Your task to perform on an android device: Open Reddit Image 0: 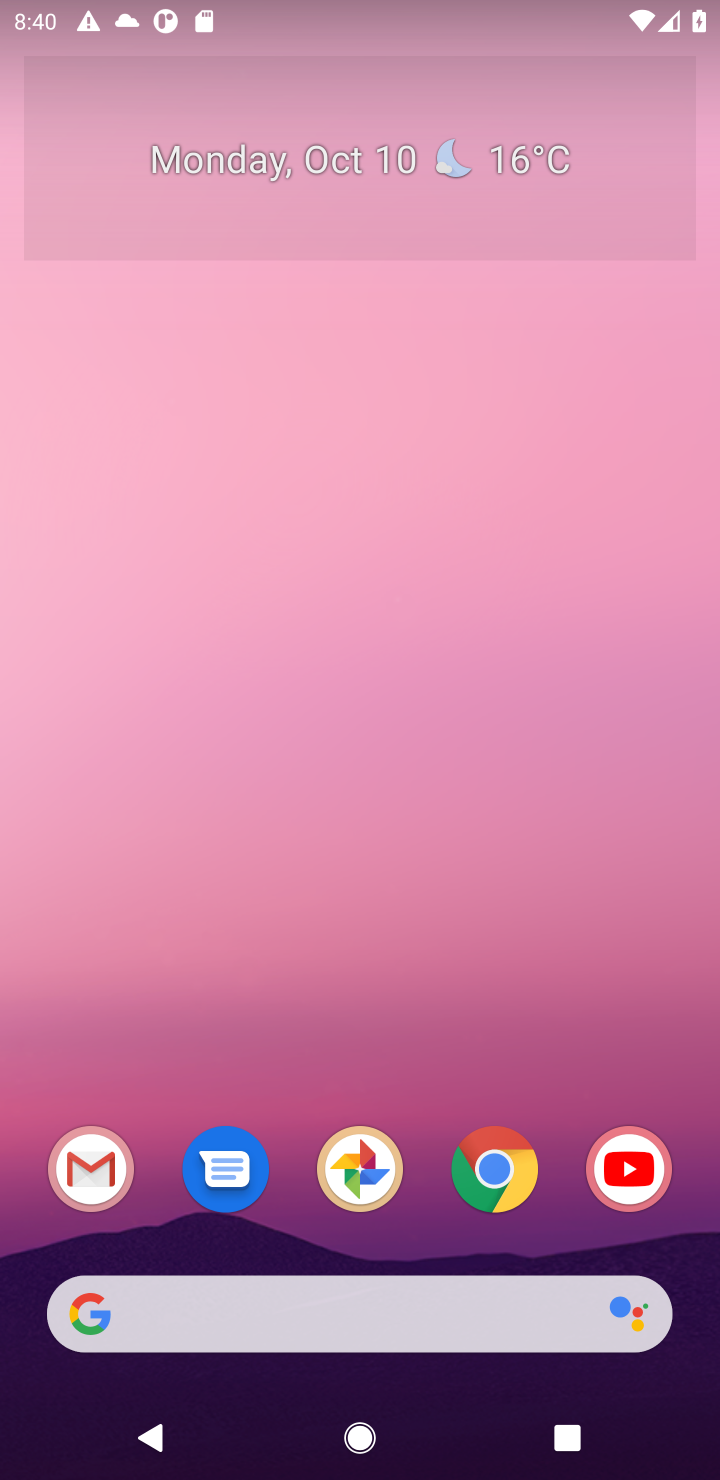
Step 0: drag from (349, 1065) to (28, 258)
Your task to perform on an android device: Open Reddit Image 1: 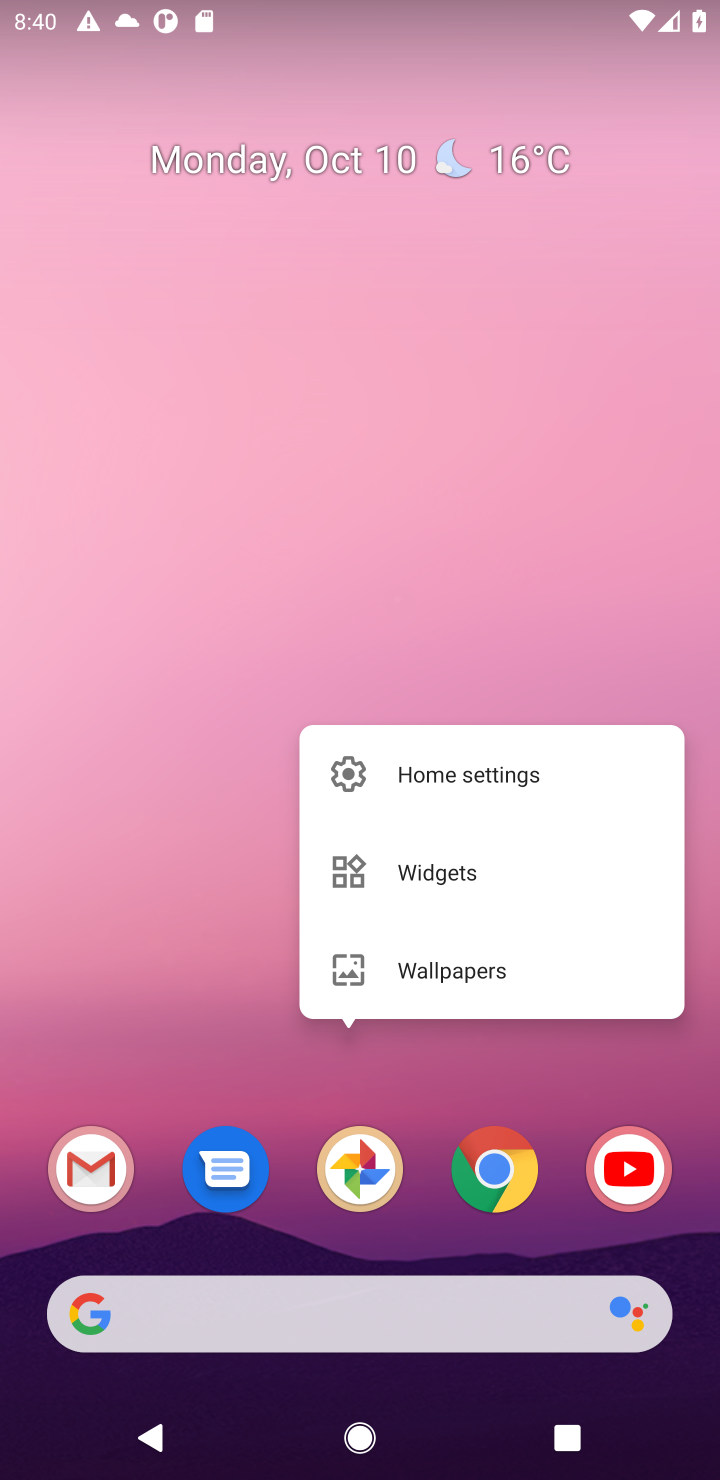
Step 1: drag from (253, 633) to (331, 172)
Your task to perform on an android device: Open Reddit Image 2: 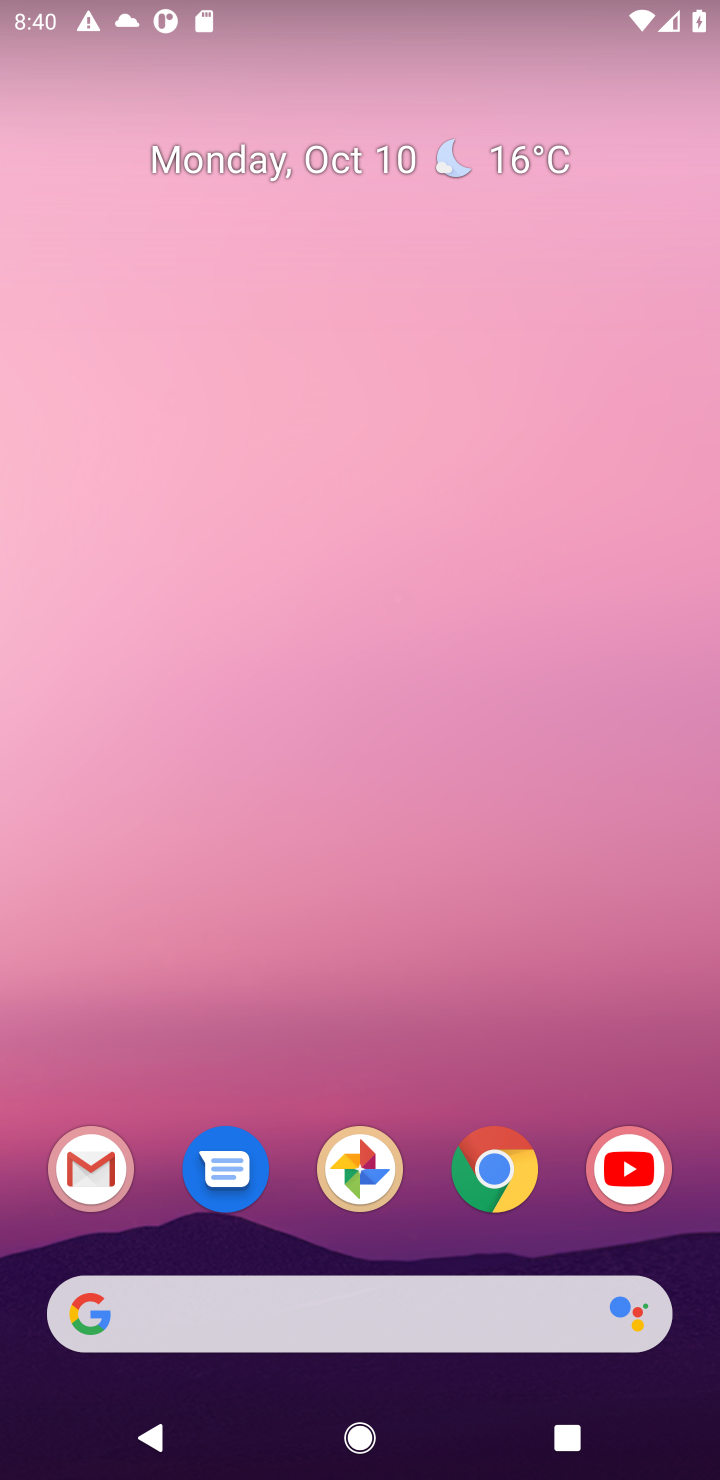
Step 2: drag from (382, 1081) to (441, 511)
Your task to perform on an android device: Open Reddit Image 3: 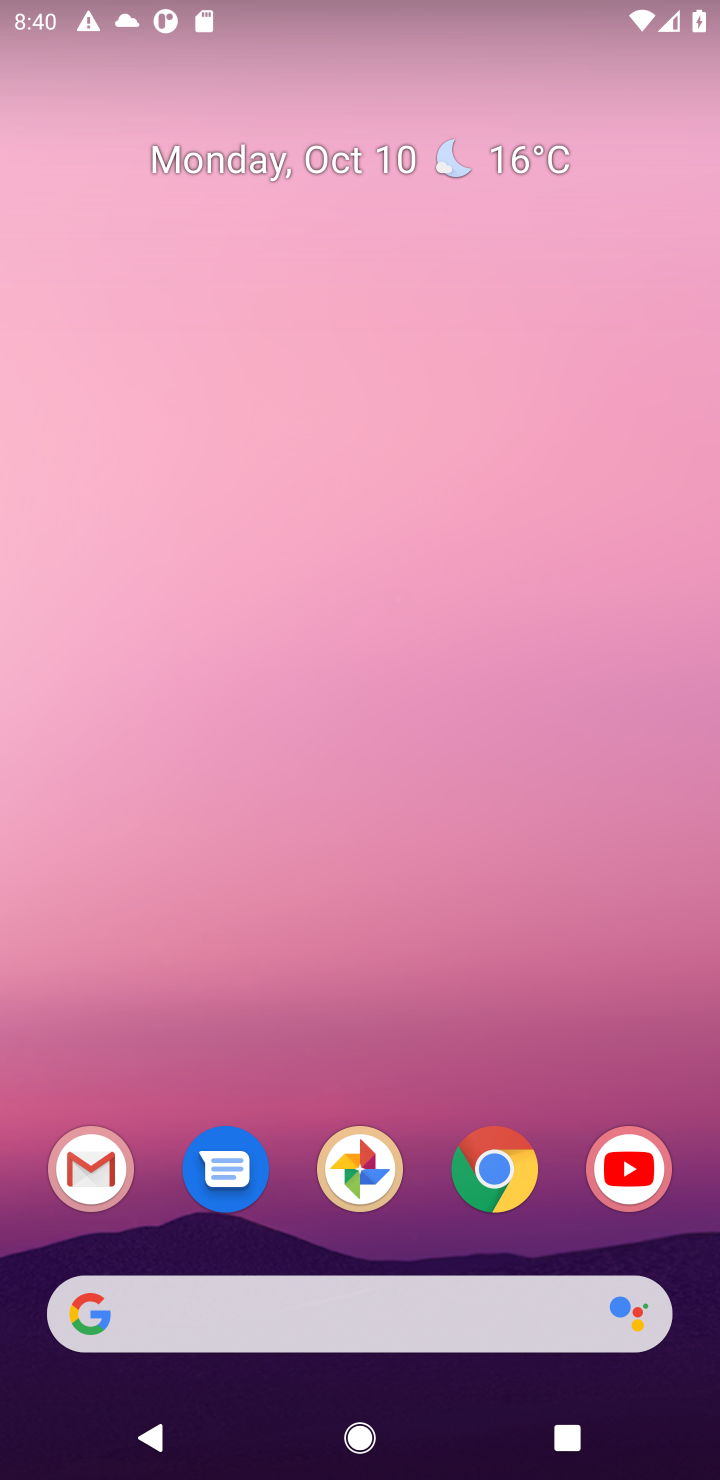
Step 3: drag from (419, 999) to (518, 342)
Your task to perform on an android device: Open Reddit Image 4: 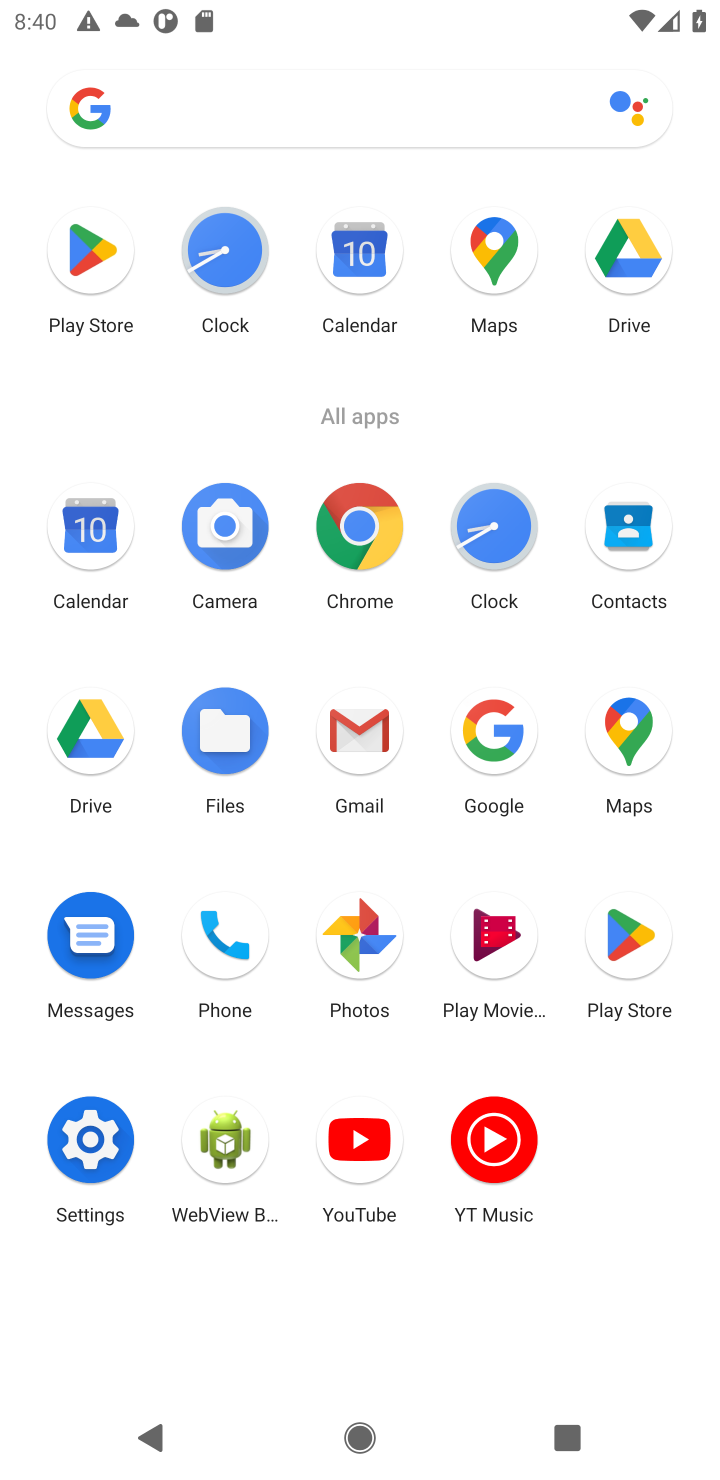
Step 4: click (98, 291)
Your task to perform on an android device: Open Reddit Image 5: 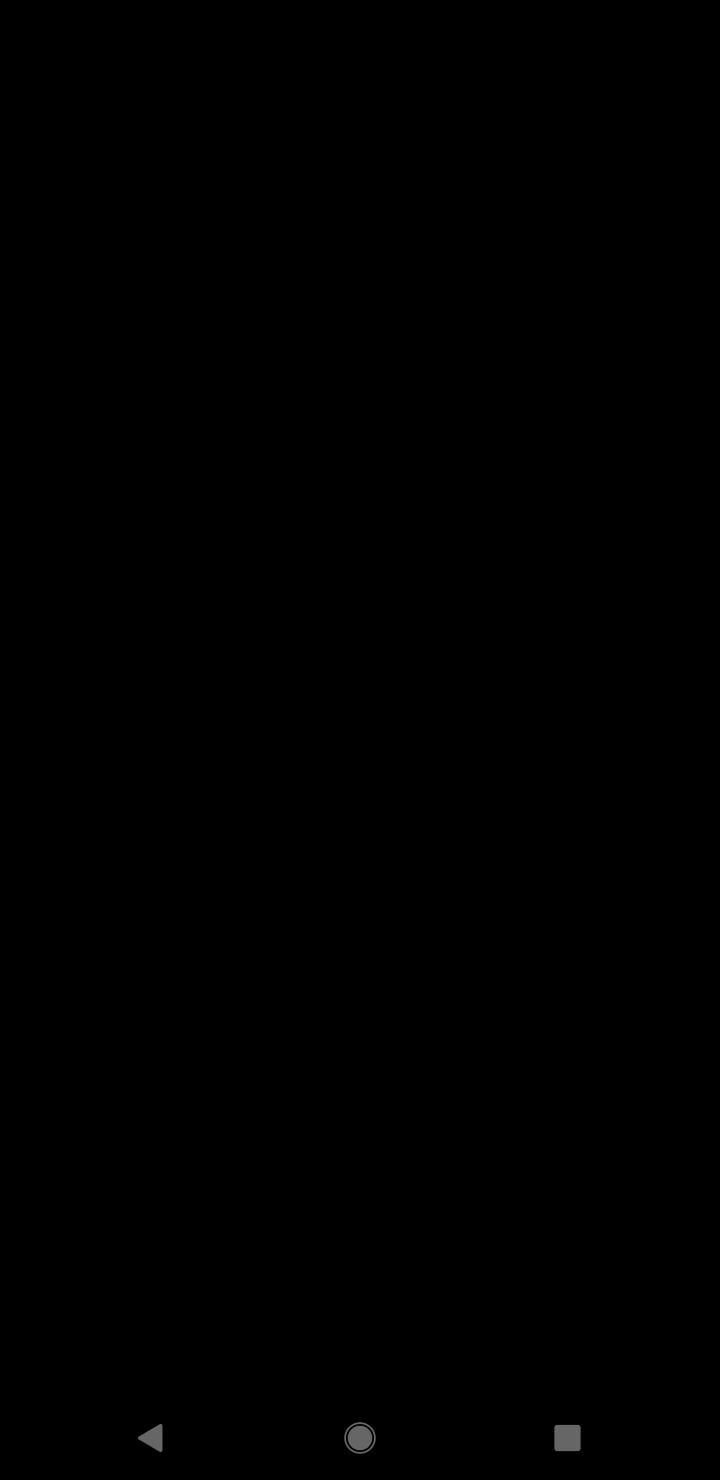
Step 5: press home button
Your task to perform on an android device: Open Reddit Image 6: 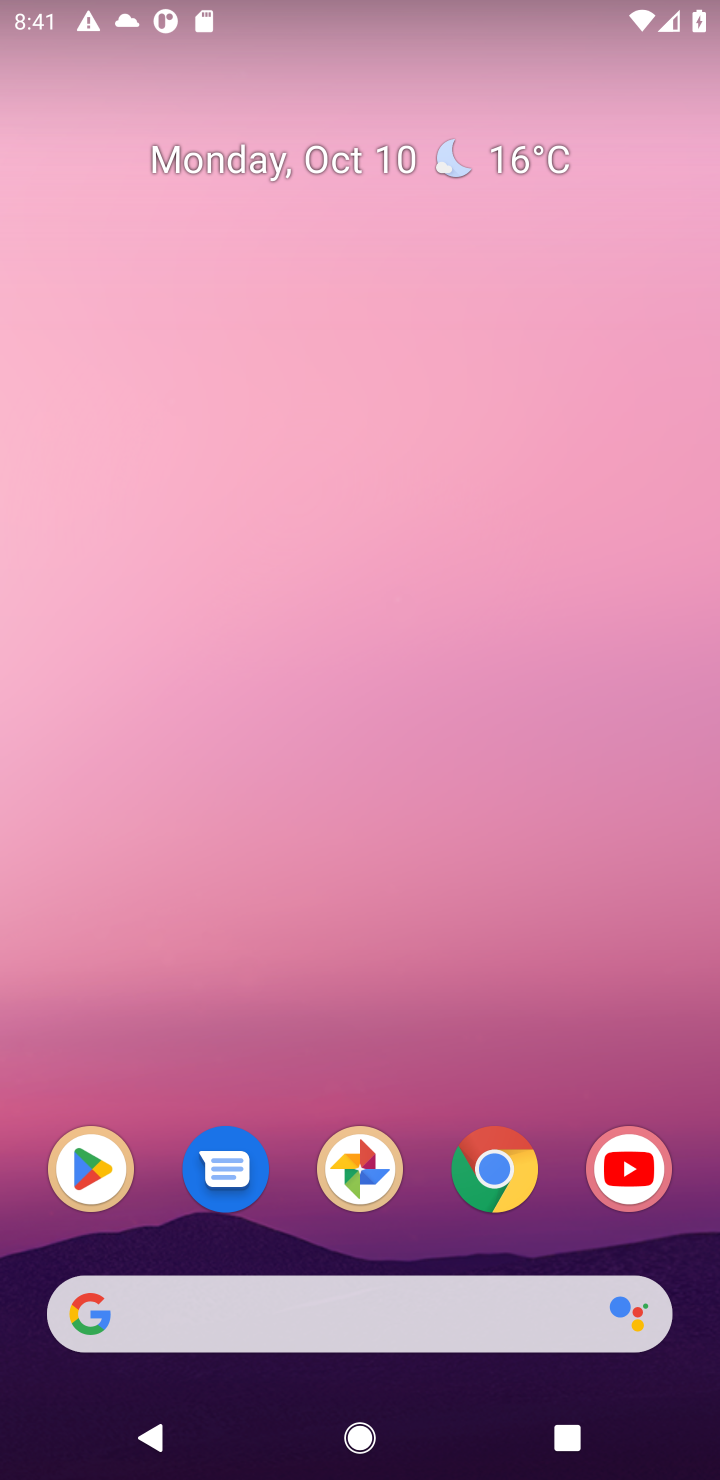
Step 6: click (579, 1433)
Your task to perform on an android device: Open Reddit Image 7: 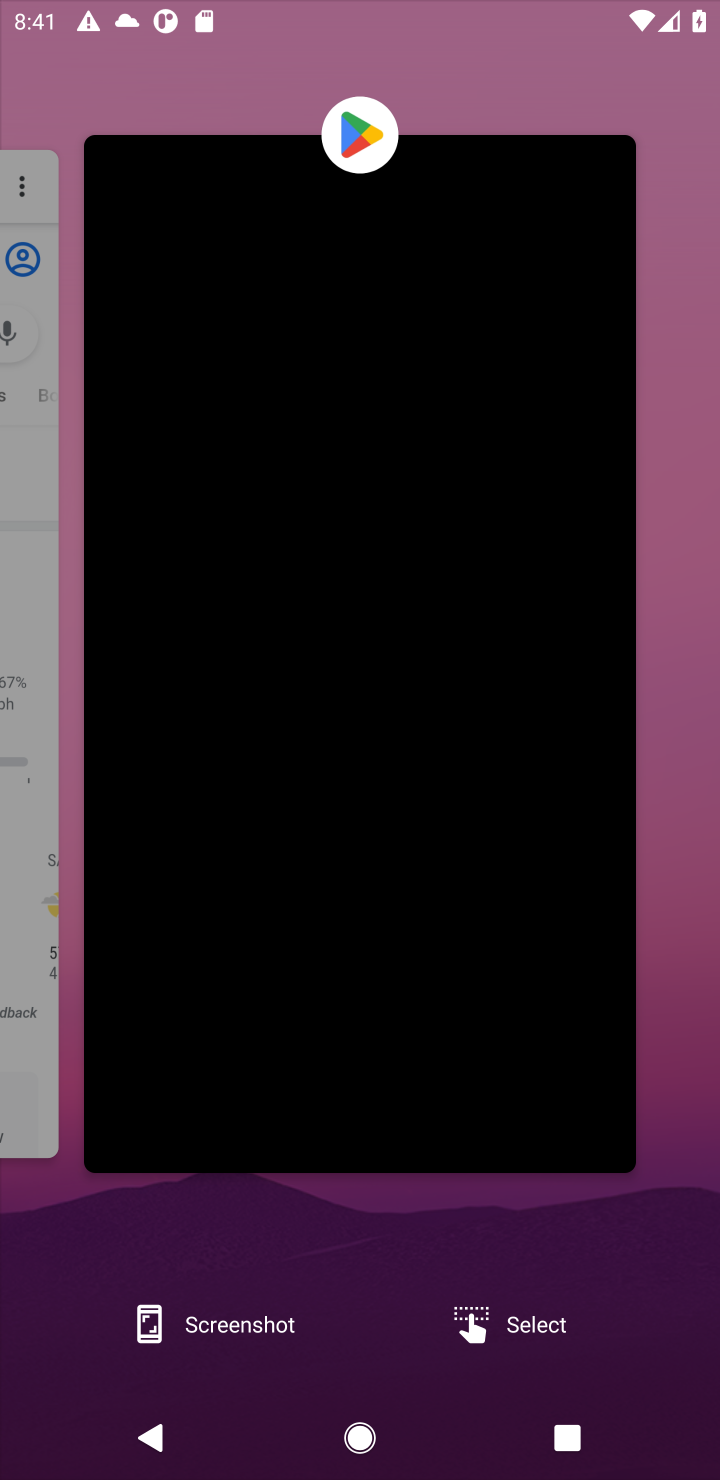
Step 7: click (306, 701)
Your task to perform on an android device: Open Reddit Image 8: 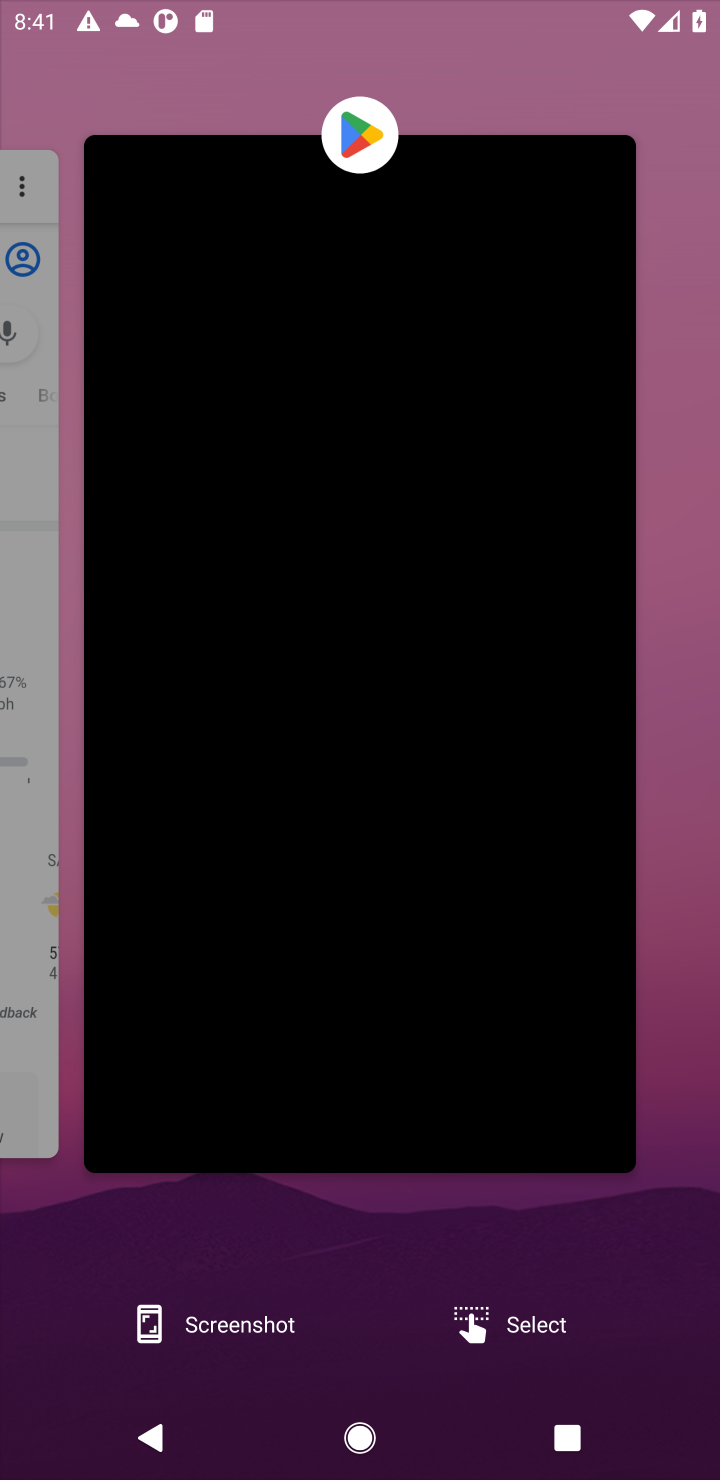
Step 8: click (306, 701)
Your task to perform on an android device: Open Reddit Image 9: 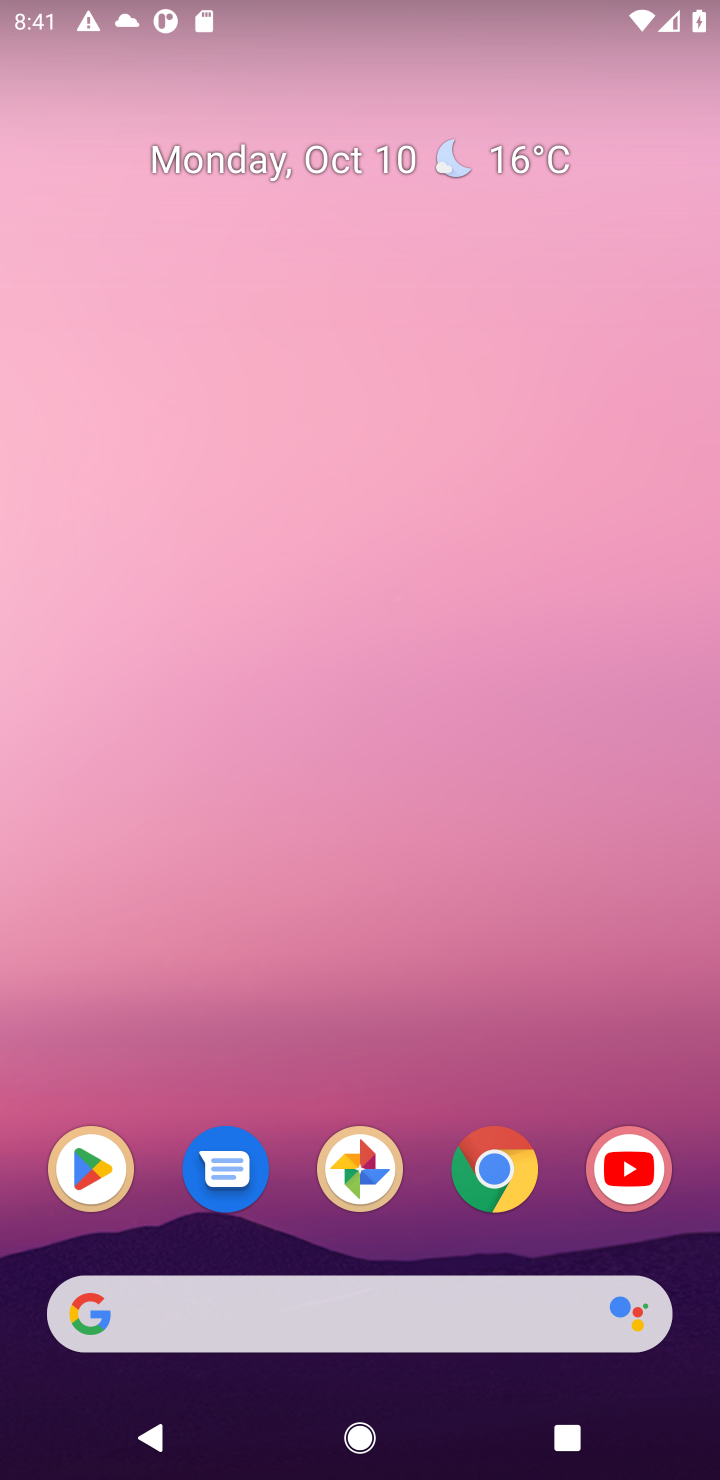
Step 9: click (492, 1150)
Your task to perform on an android device: Open Reddit Image 10: 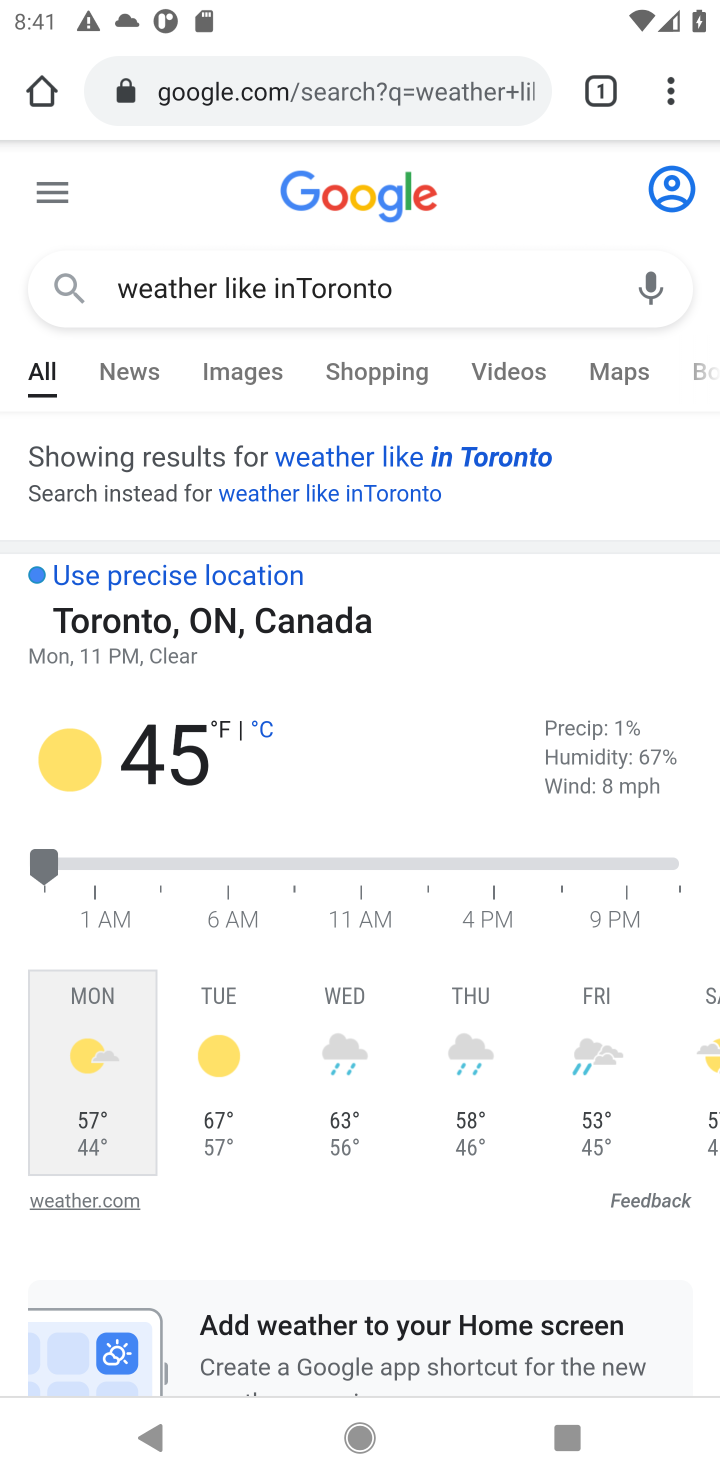
Step 10: click (403, 86)
Your task to perform on an android device: Open Reddit Image 11: 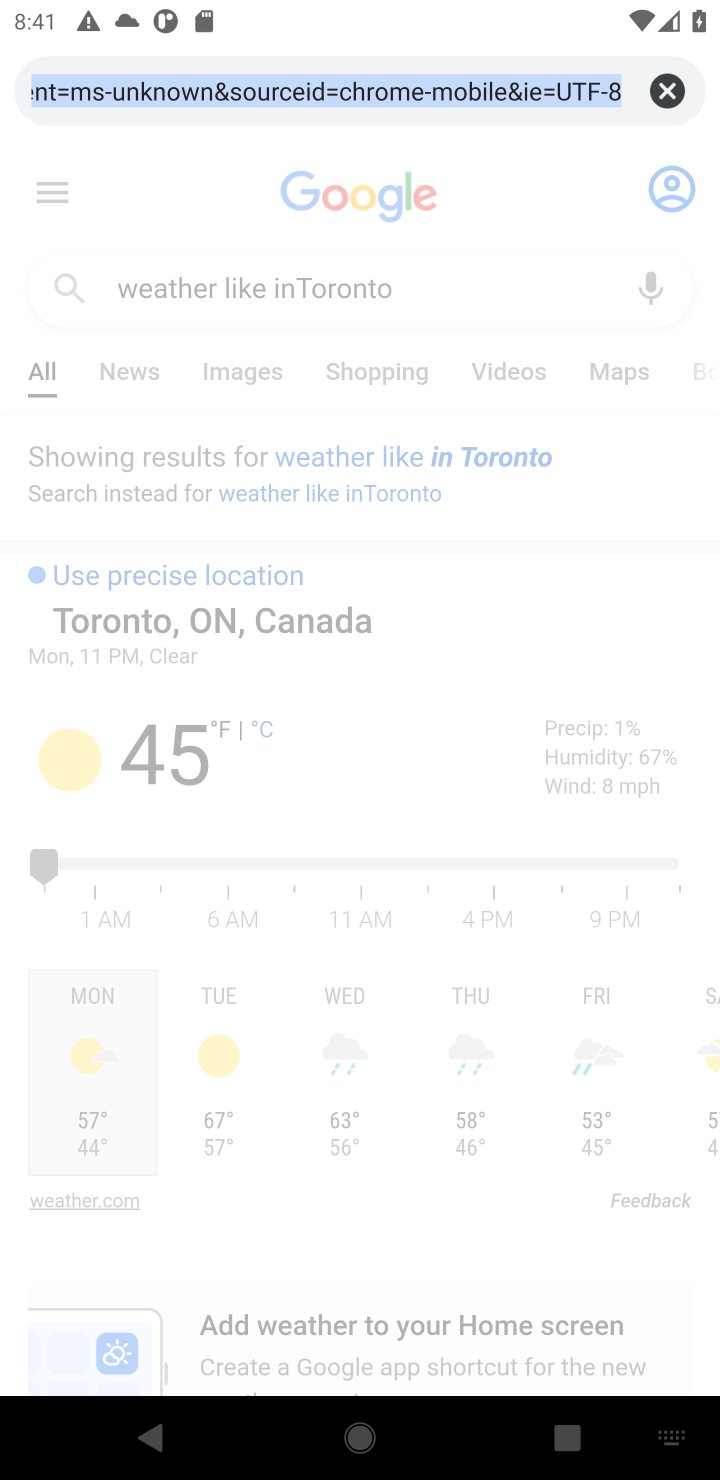
Step 11: type "Reddit"
Your task to perform on an android device: Open Reddit Image 12: 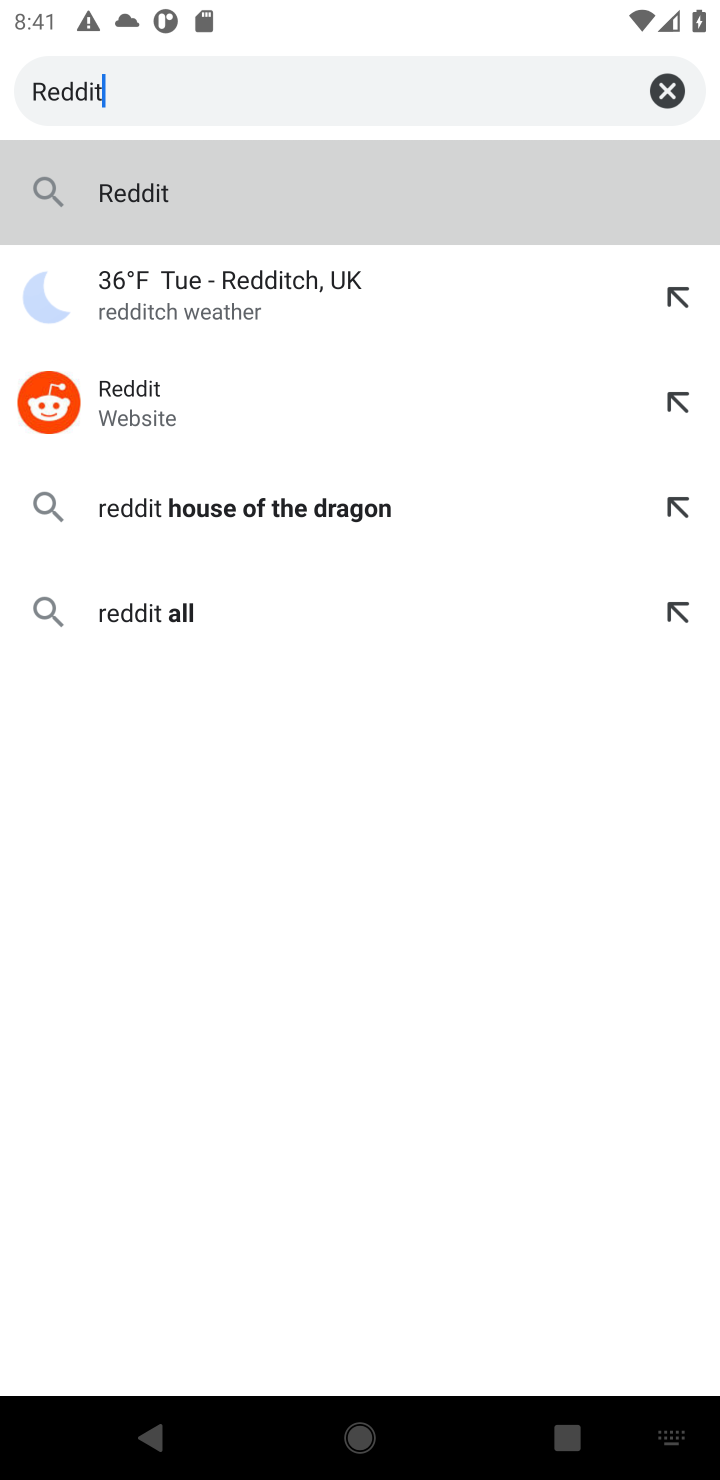
Step 12: click (199, 393)
Your task to perform on an android device: Open Reddit Image 13: 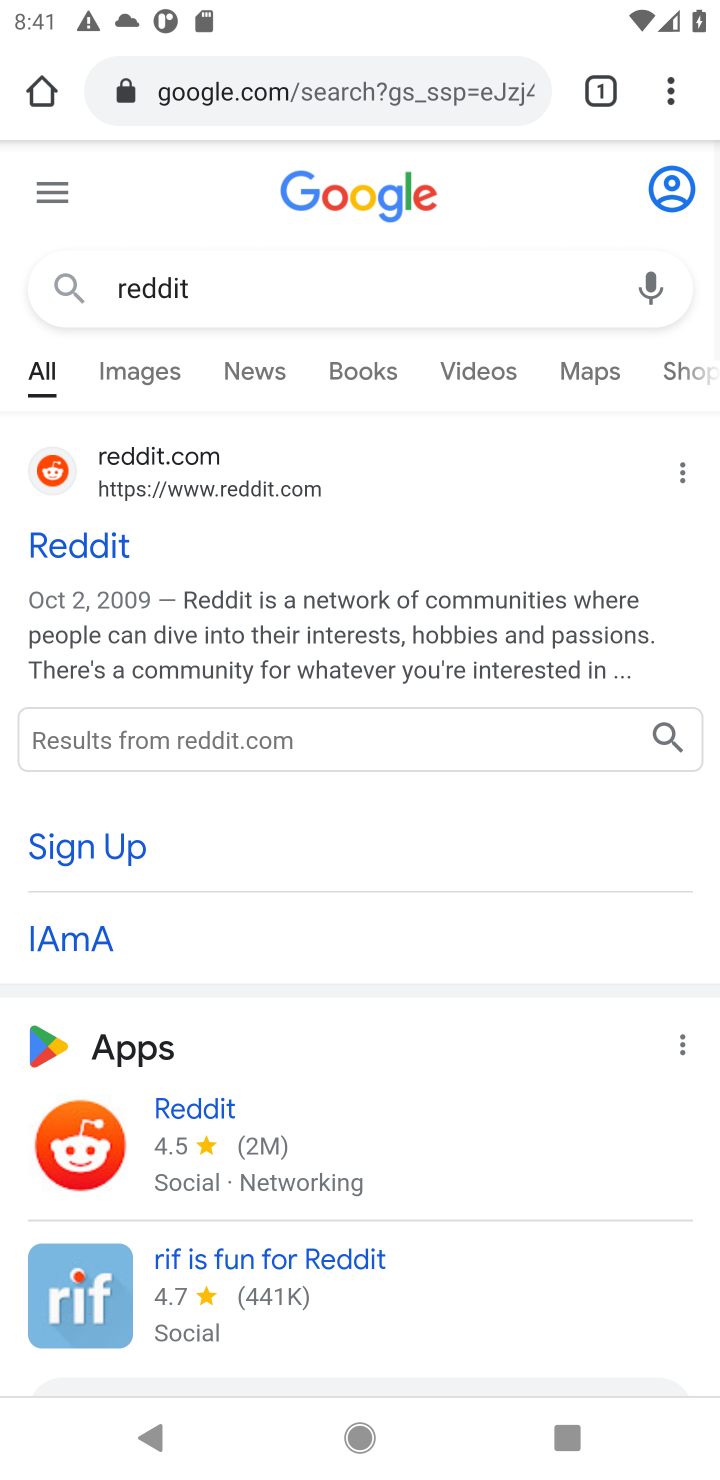
Step 13: click (382, 1461)
Your task to perform on an android device: Open Reddit Image 14: 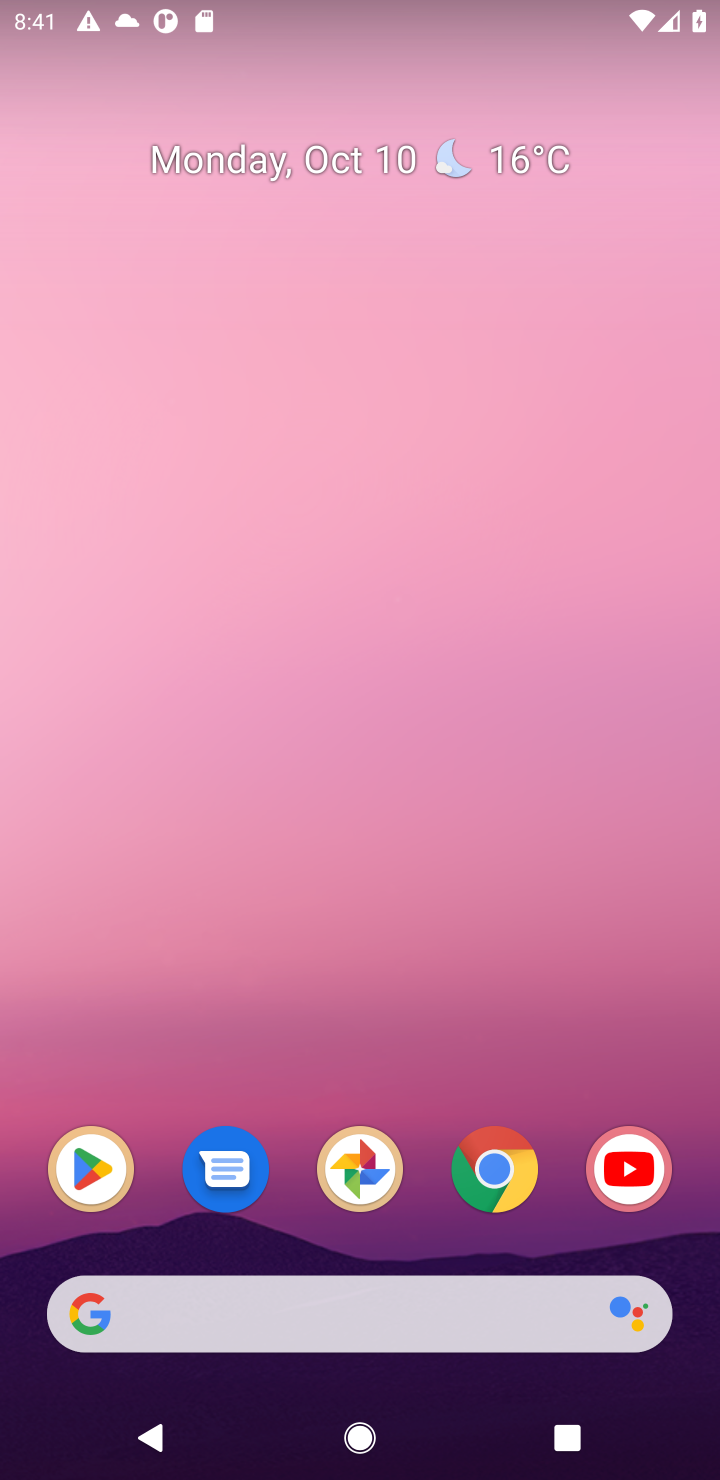
Step 14: click (285, 296)
Your task to perform on an android device: Open Reddit Image 15: 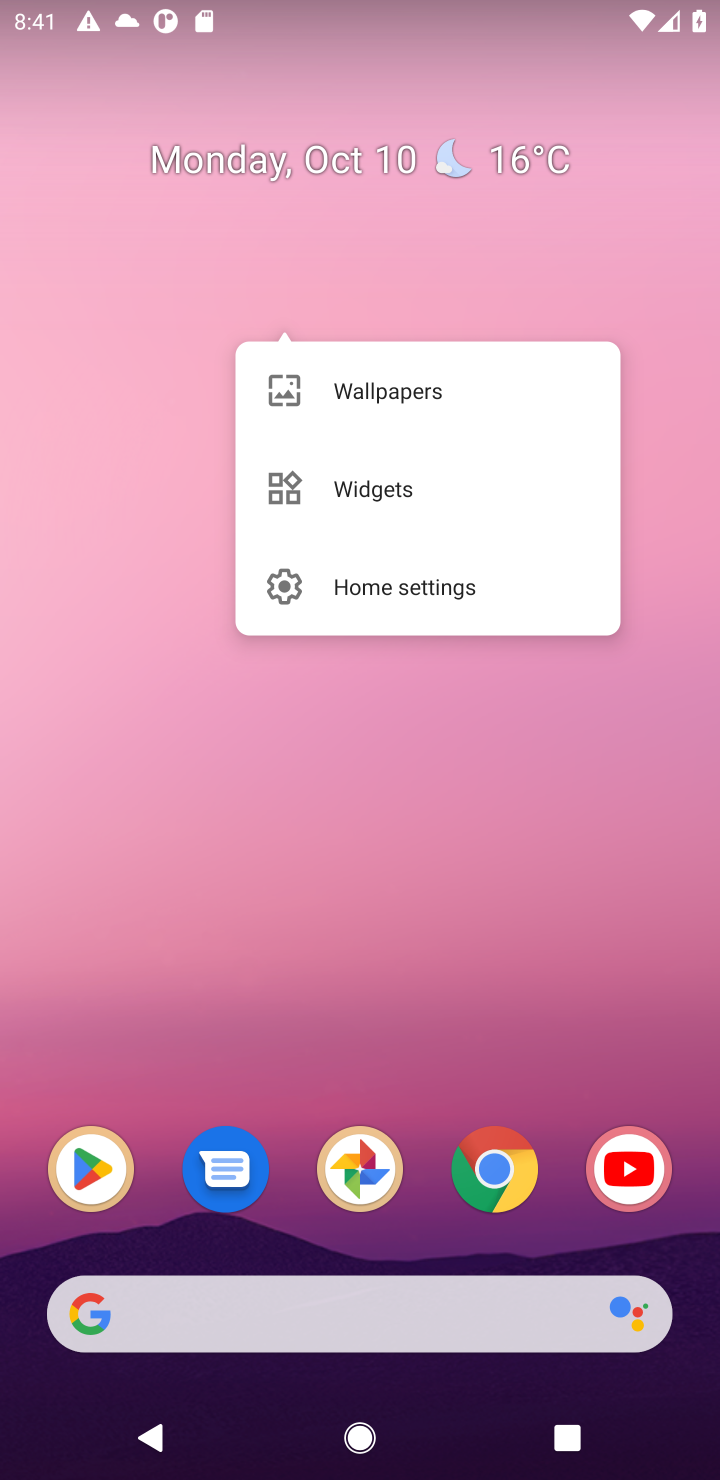
Step 15: click (411, 498)
Your task to perform on an android device: Open Reddit Image 16: 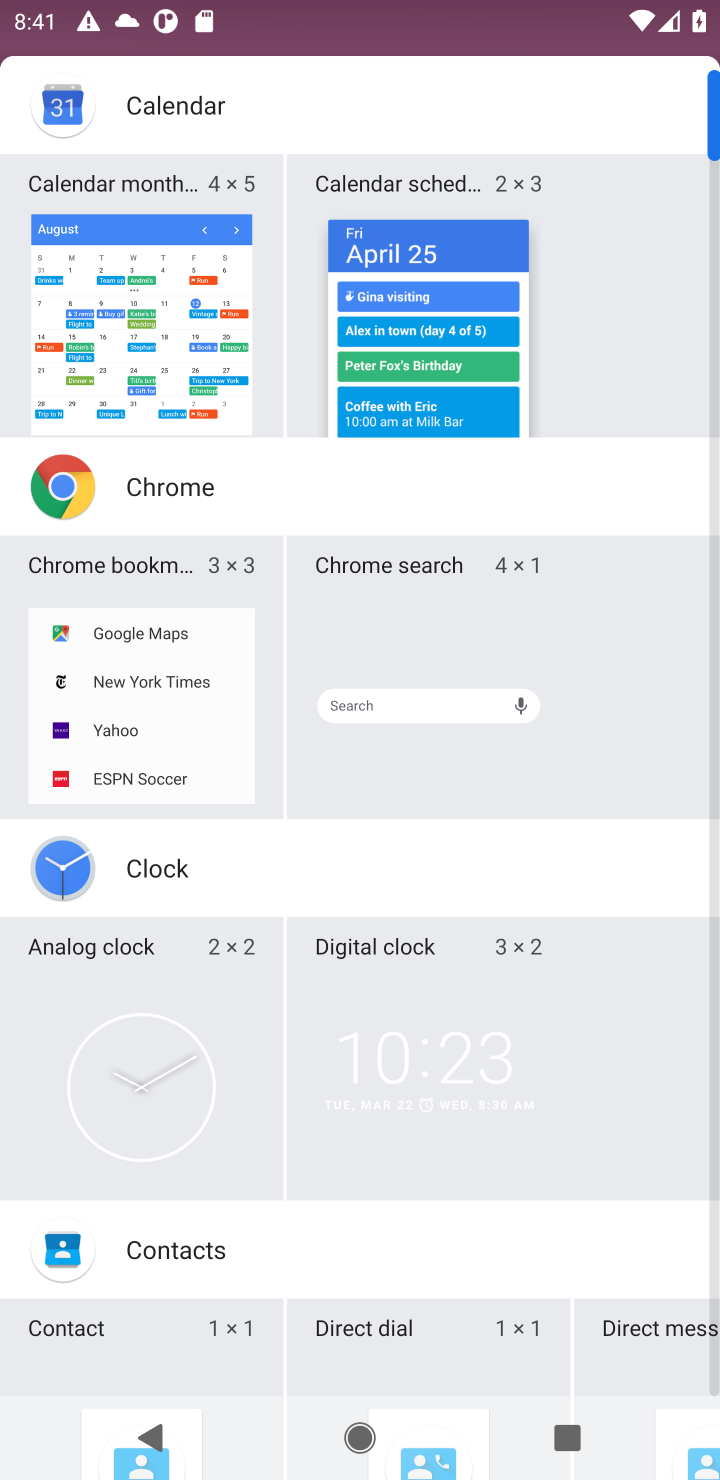
Step 16: click (349, 1440)
Your task to perform on an android device: Open Reddit Image 17: 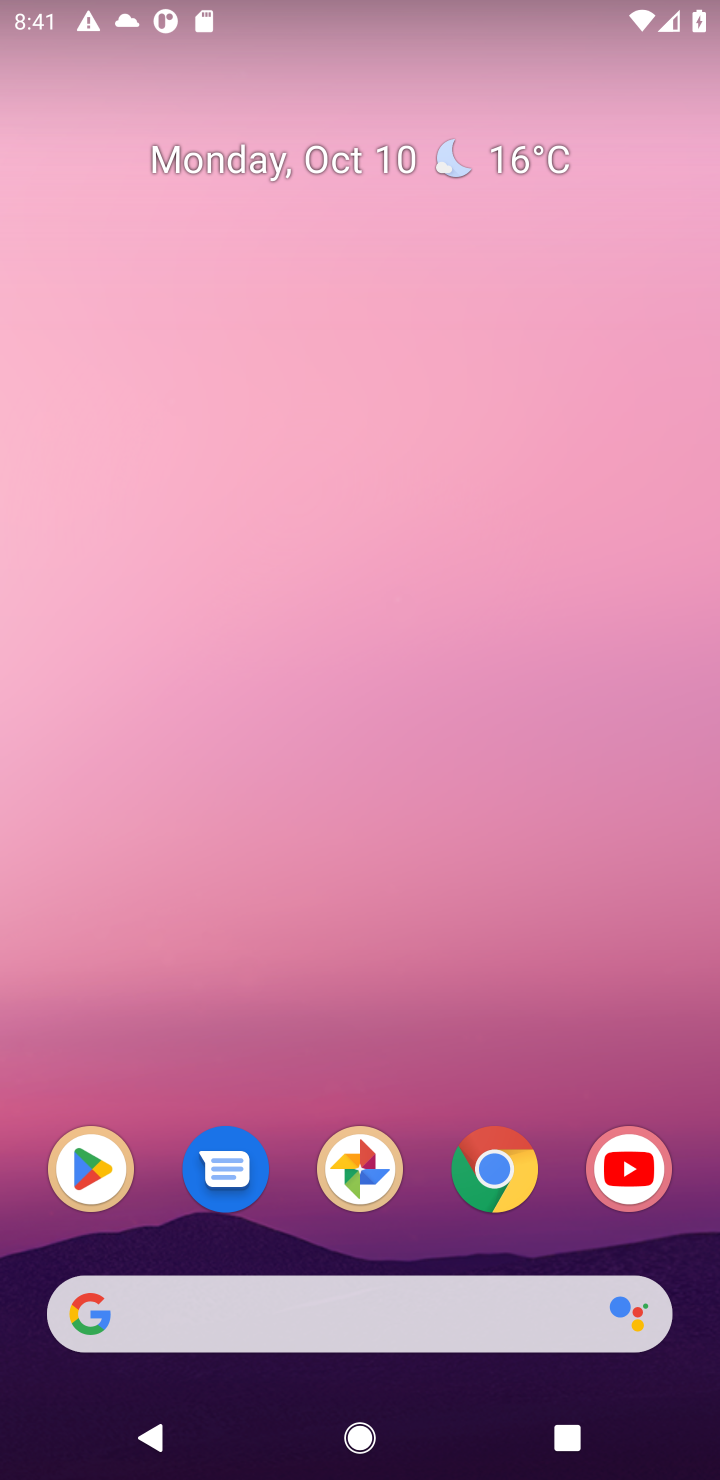
Step 17: drag from (368, 638) to (454, 309)
Your task to perform on an android device: Open Reddit Image 18: 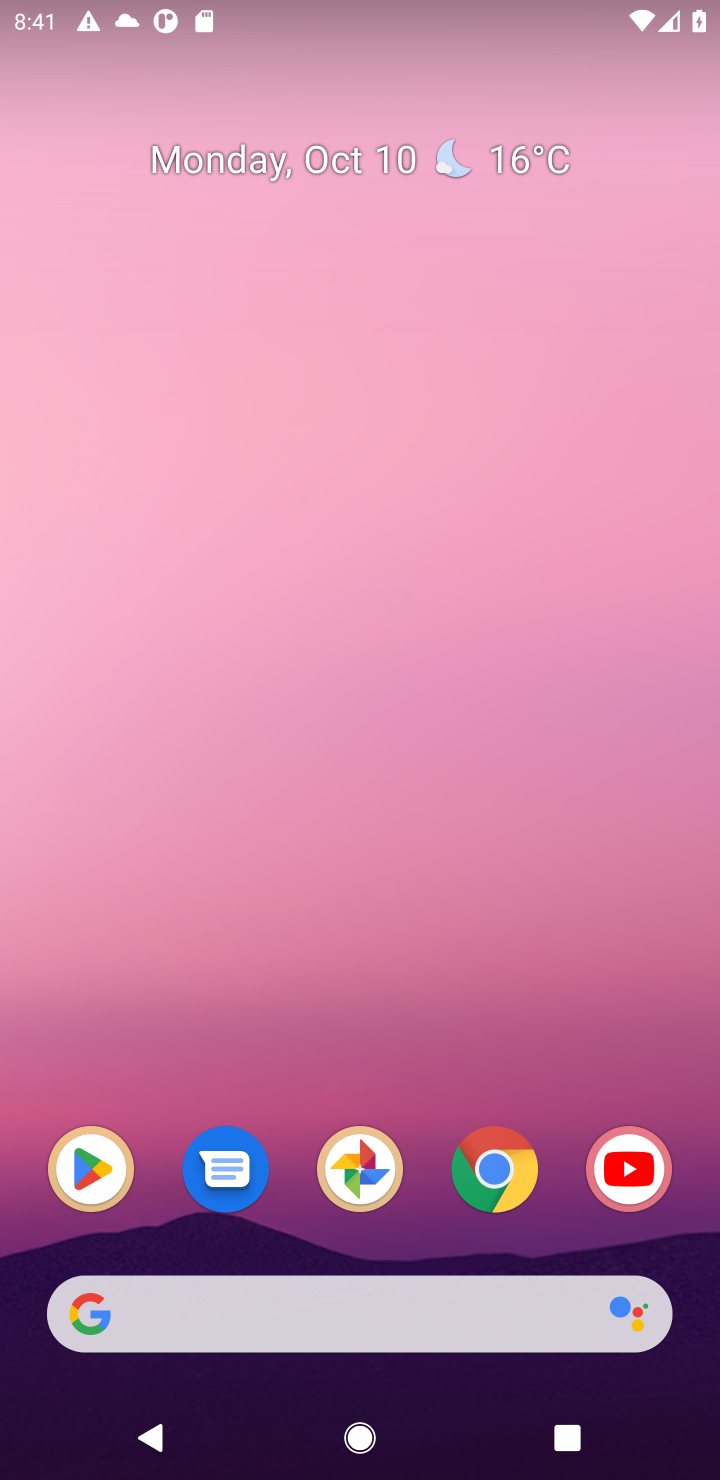
Step 18: drag from (371, 1045) to (355, 1)
Your task to perform on an android device: Open Reddit Image 19: 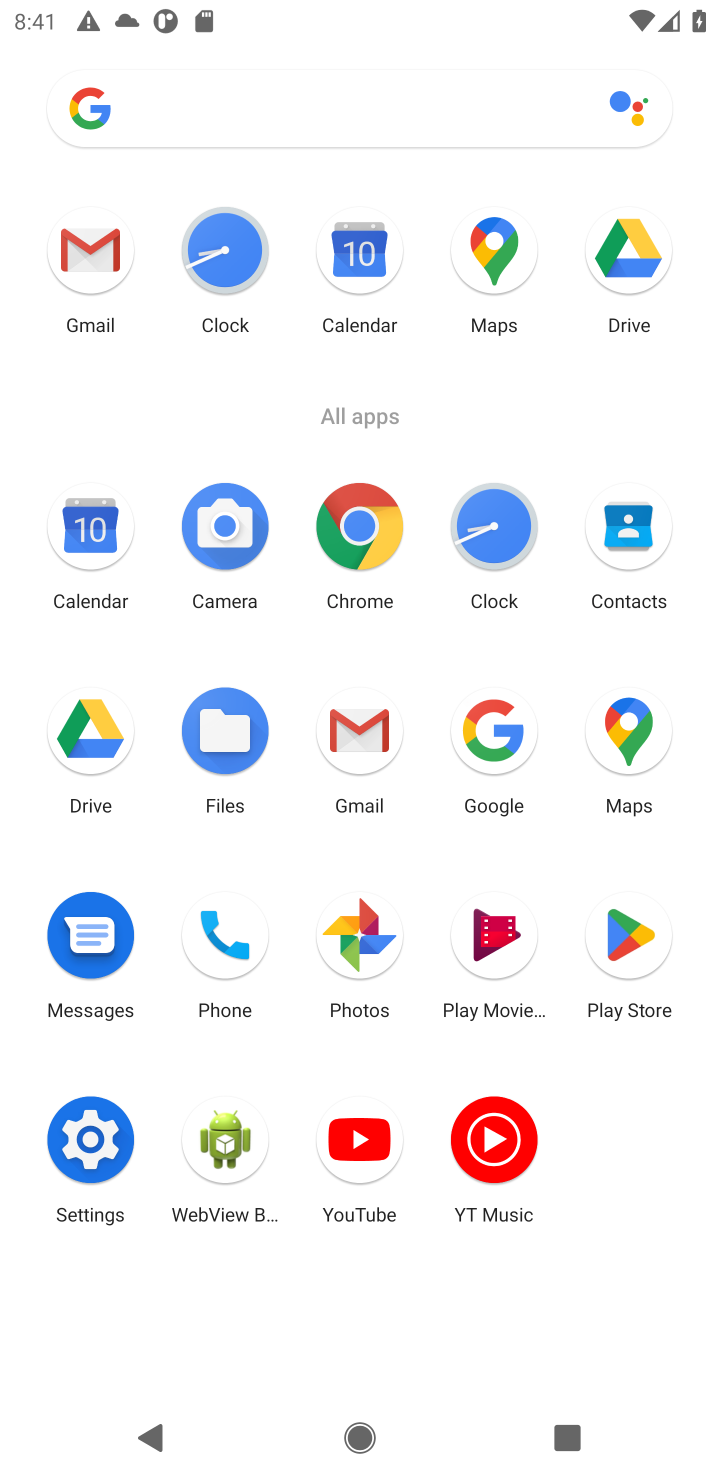
Step 19: click (634, 943)
Your task to perform on an android device: Open Reddit Image 20: 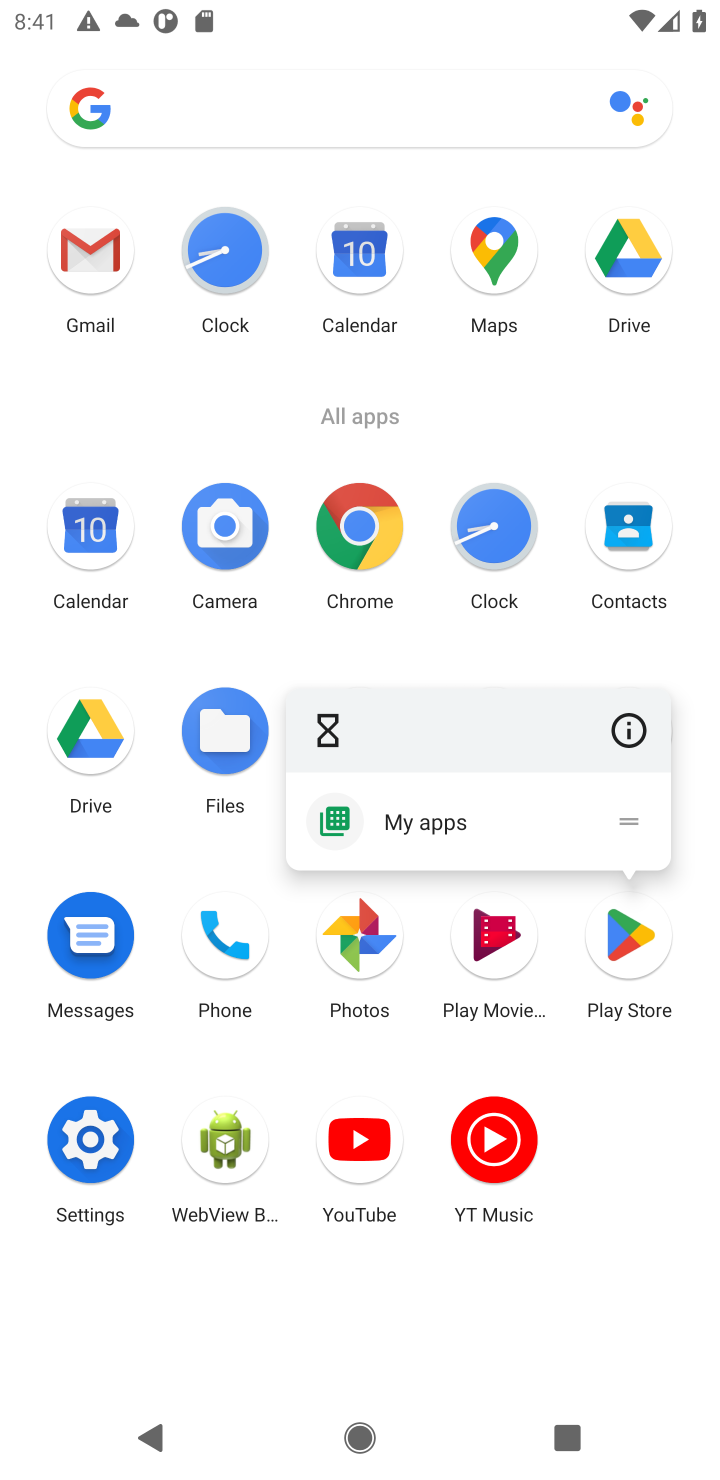
Step 20: click (634, 943)
Your task to perform on an android device: Open Reddit Image 21: 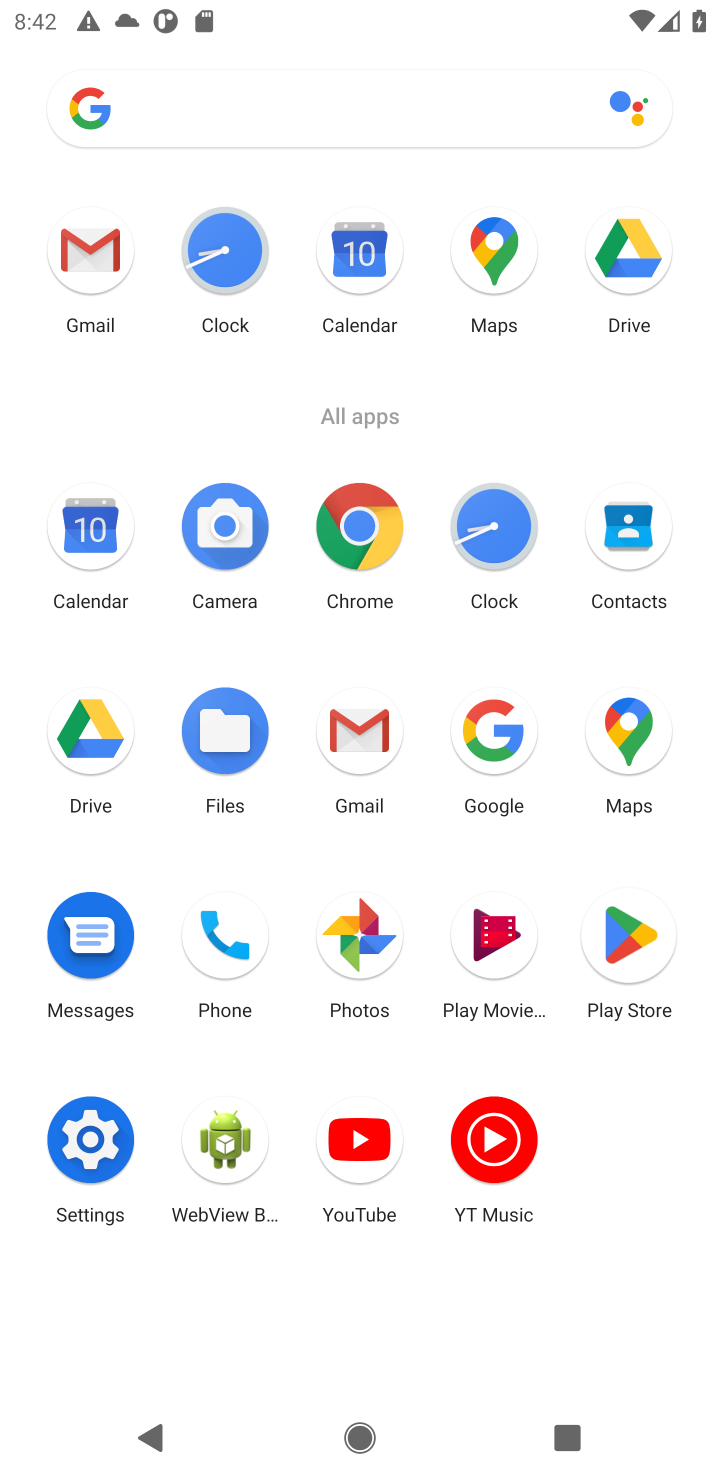
Step 21: click (634, 943)
Your task to perform on an android device: Open Reddit Image 22: 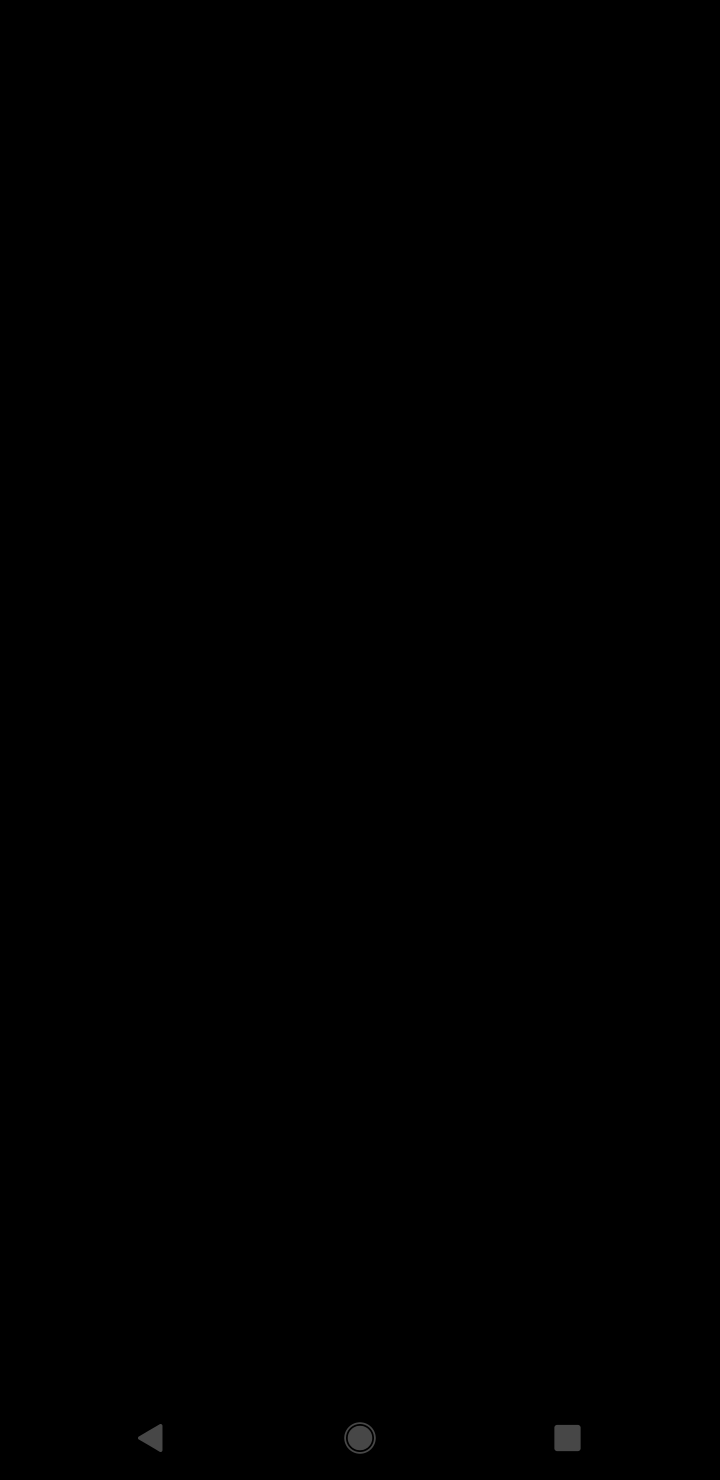
Step 22: task complete